Your task to perform on an android device: Open Youtube and go to the subscriptions tab Image 0: 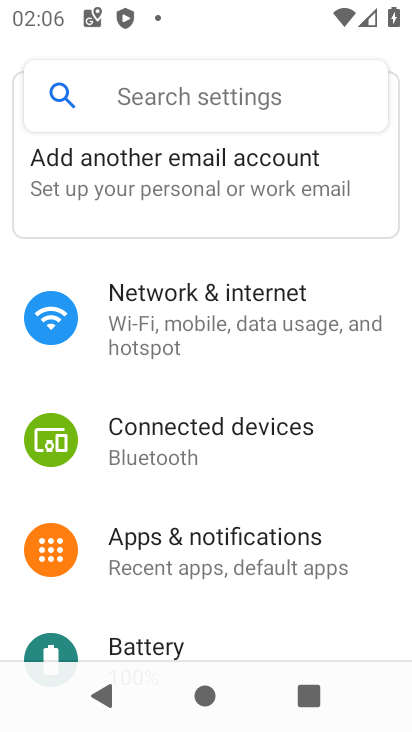
Step 0: press home button
Your task to perform on an android device: Open Youtube and go to the subscriptions tab Image 1: 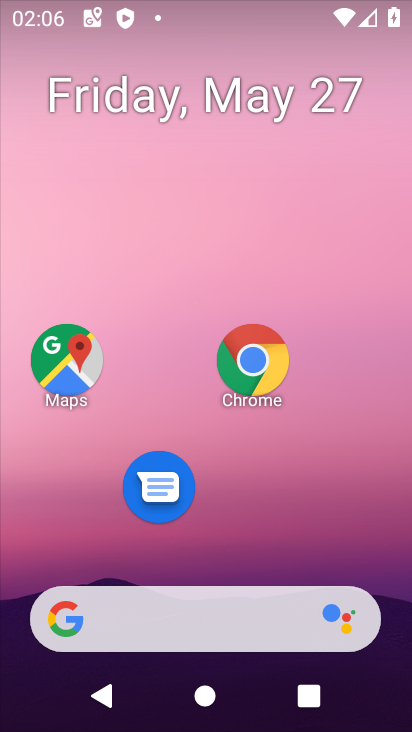
Step 1: drag from (297, 481) to (329, 3)
Your task to perform on an android device: Open Youtube and go to the subscriptions tab Image 2: 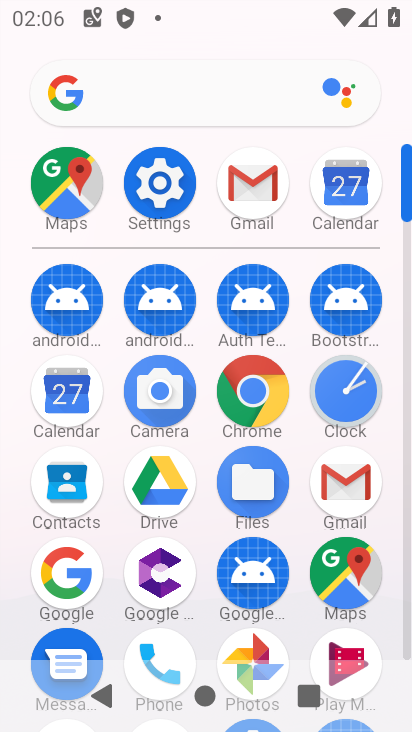
Step 2: drag from (295, 624) to (318, 173)
Your task to perform on an android device: Open Youtube and go to the subscriptions tab Image 3: 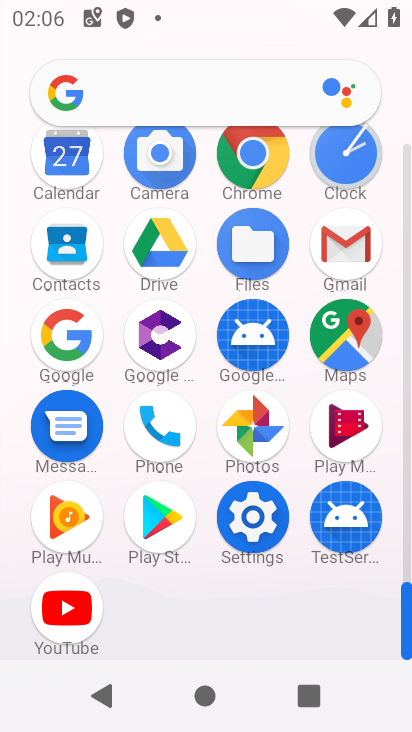
Step 3: click (64, 613)
Your task to perform on an android device: Open Youtube and go to the subscriptions tab Image 4: 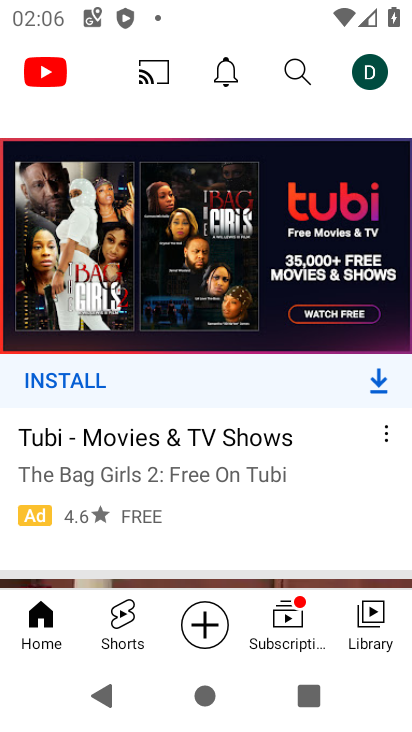
Step 4: click (301, 616)
Your task to perform on an android device: Open Youtube and go to the subscriptions tab Image 5: 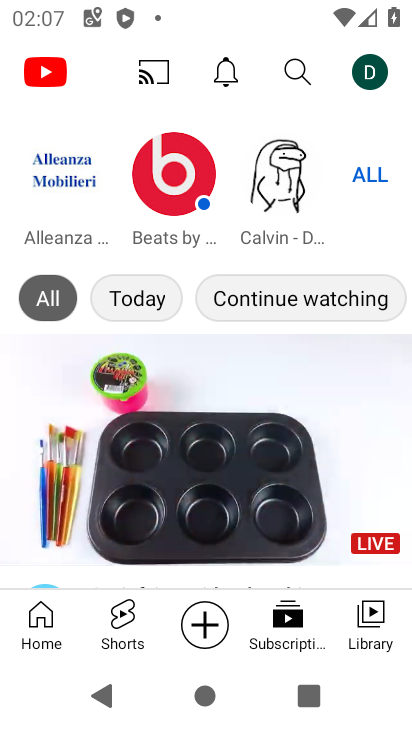
Step 5: task complete